Your task to perform on an android device: turn on translation in the chrome app Image 0: 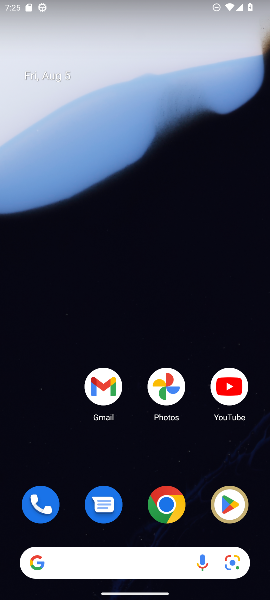
Step 0: click (174, 507)
Your task to perform on an android device: turn on translation in the chrome app Image 1: 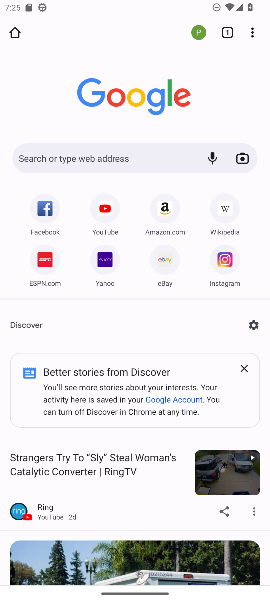
Step 1: drag from (249, 30) to (181, 294)
Your task to perform on an android device: turn on translation in the chrome app Image 2: 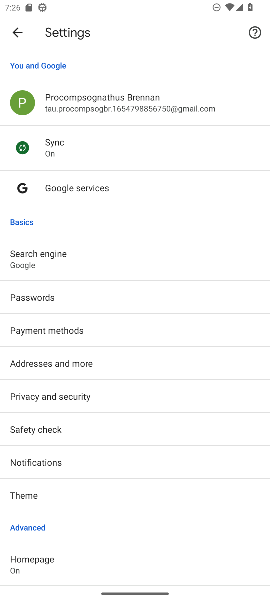
Step 2: drag from (58, 522) to (28, 147)
Your task to perform on an android device: turn on translation in the chrome app Image 3: 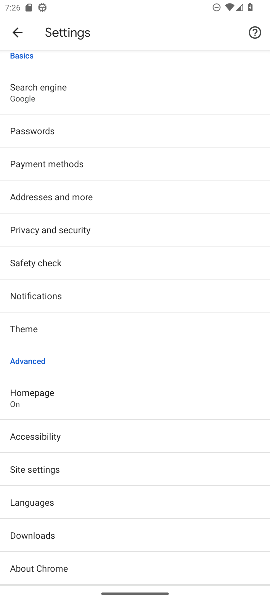
Step 3: click (59, 498)
Your task to perform on an android device: turn on translation in the chrome app Image 4: 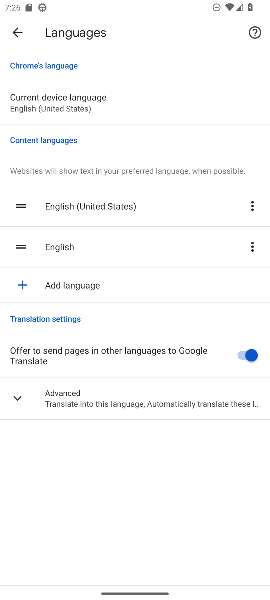
Step 4: task complete